Your task to perform on an android device: change notification settings in the gmail app Image 0: 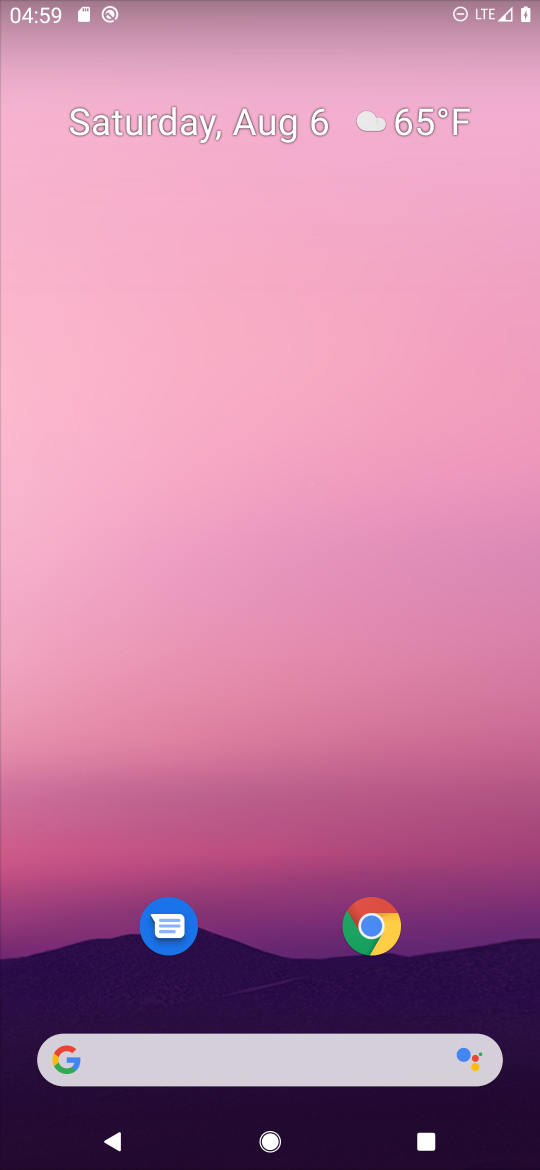
Step 0: drag from (283, 860) to (260, 253)
Your task to perform on an android device: change notification settings in the gmail app Image 1: 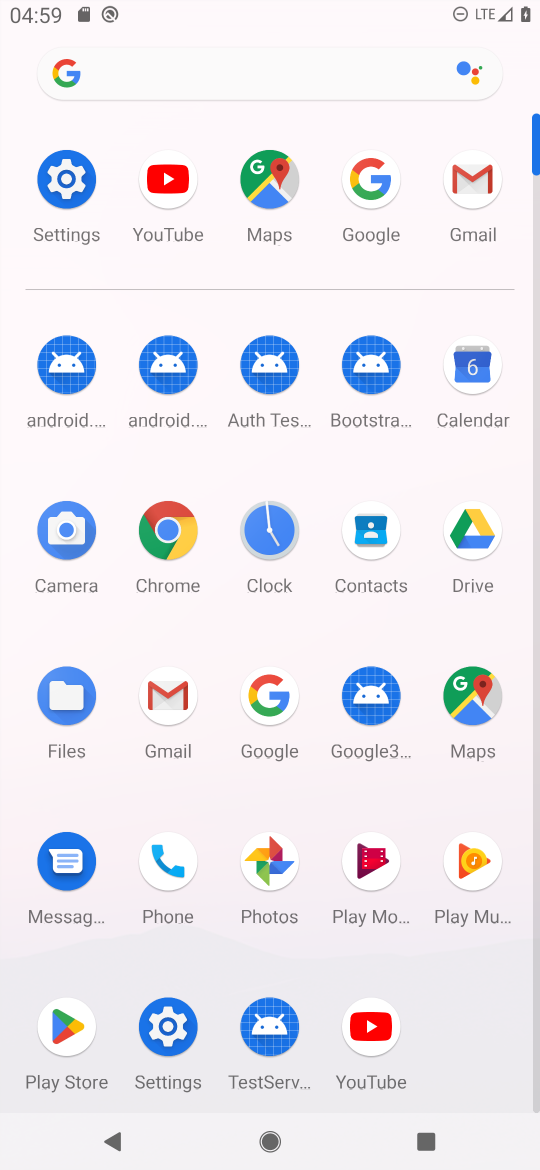
Step 1: click (88, 180)
Your task to perform on an android device: change notification settings in the gmail app Image 2: 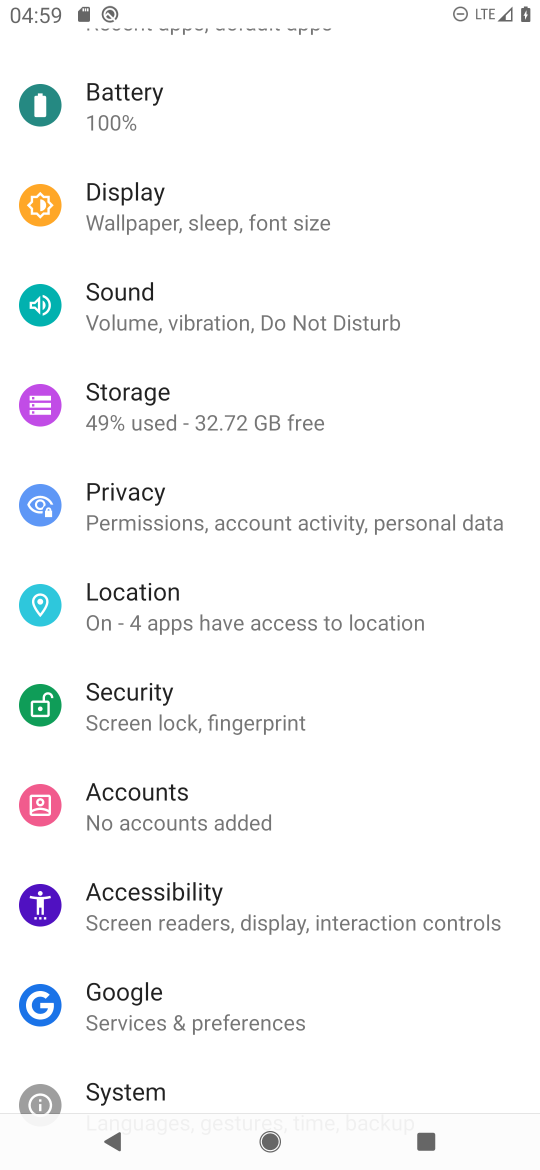
Step 2: drag from (216, 328) to (261, 726)
Your task to perform on an android device: change notification settings in the gmail app Image 3: 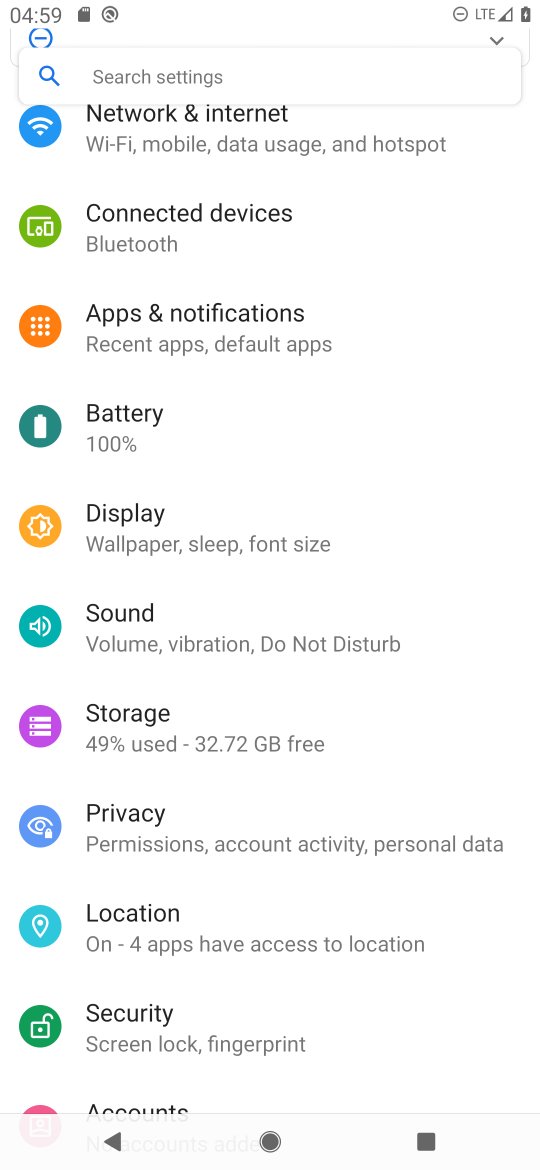
Step 3: press home button
Your task to perform on an android device: change notification settings in the gmail app Image 4: 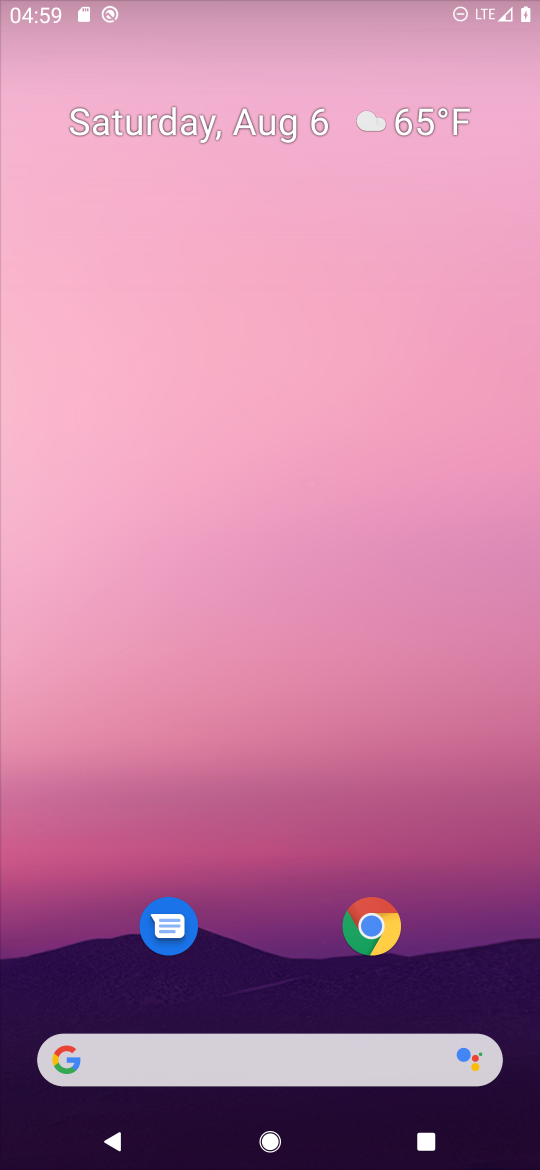
Step 4: drag from (250, 887) to (269, 294)
Your task to perform on an android device: change notification settings in the gmail app Image 5: 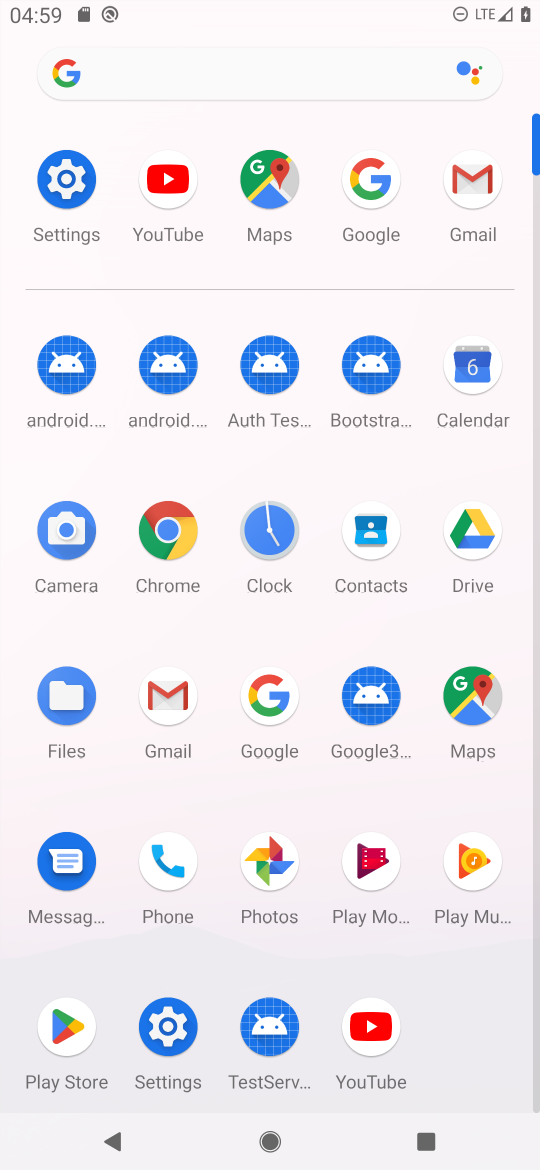
Step 5: click (465, 197)
Your task to perform on an android device: change notification settings in the gmail app Image 6: 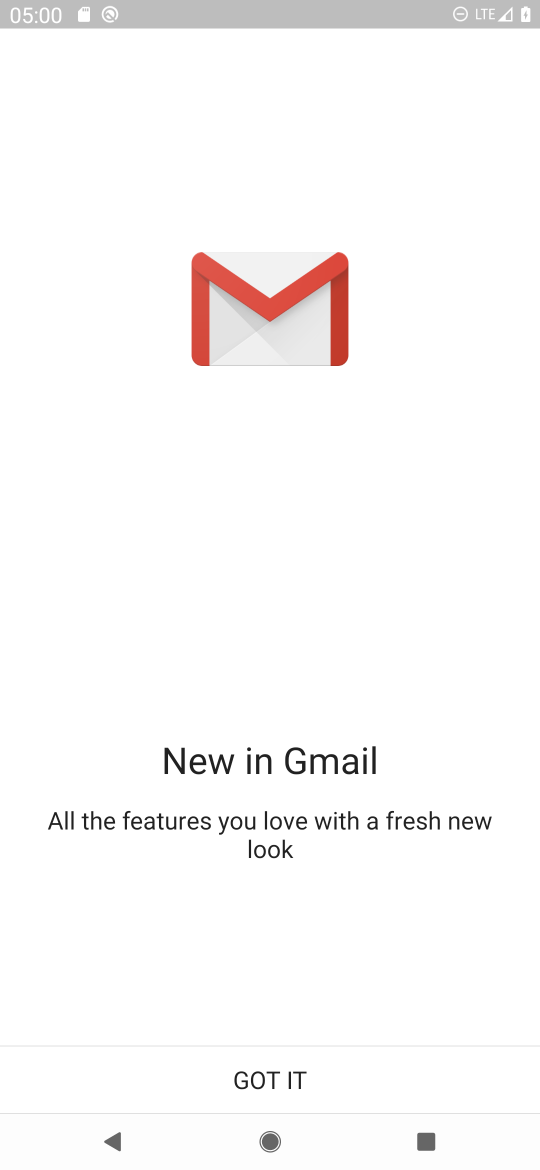
Step 6: click (322, 1051)
Your task to perform on an android device: change notification settings in the gmail app Image 7: 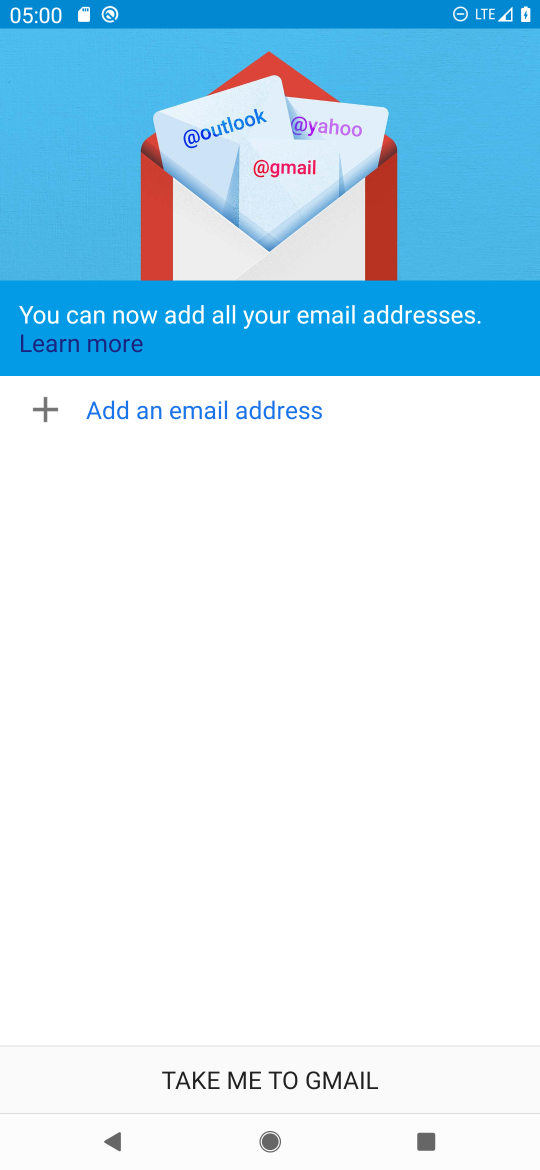
Step 7: click (322, 1051)
Your task to perform on an android device: change notification settings in the gmail app Image 8: 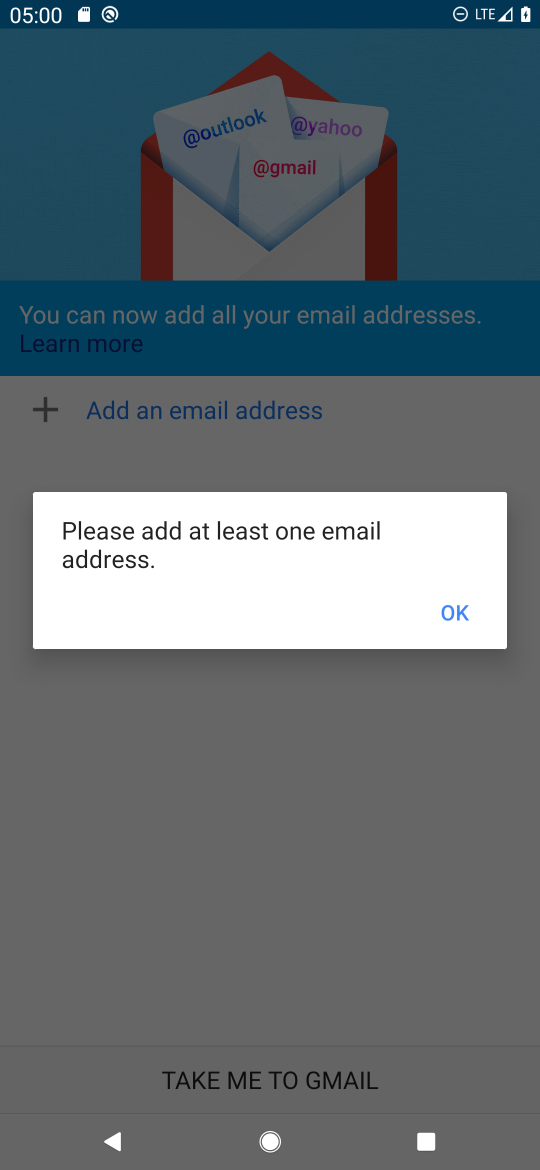
Step 8: click (451, 622)
Your task to perform on an android device: change notification settings in the gmail app Image 9: 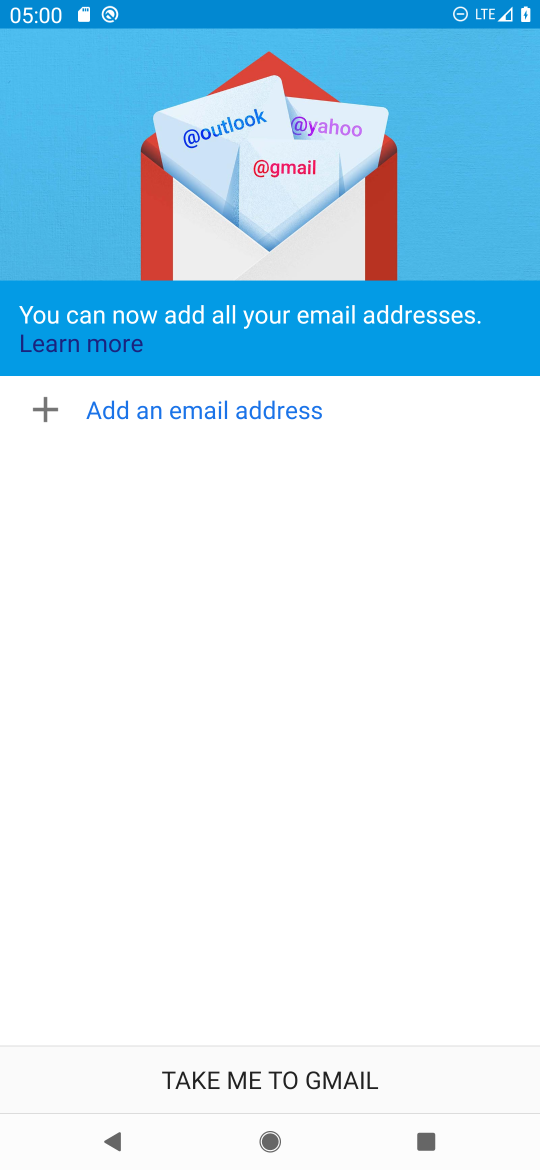
Step 9: task complete